Your task to perform on an android device: turn pop-ups off in chrome Image 0: 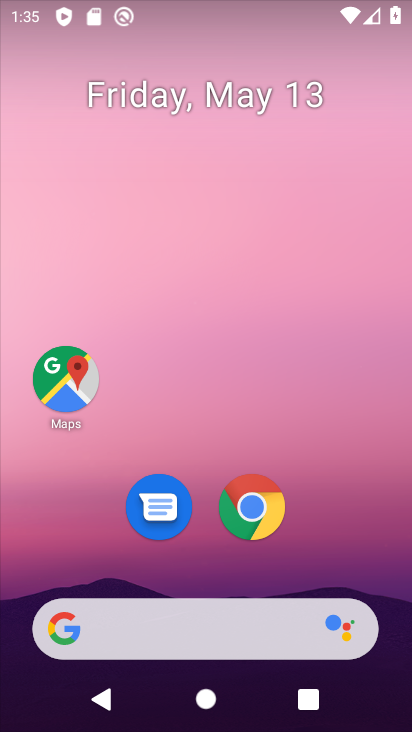
Step 0: click (176, 14)
Your task to perform on an android device: turn pop-ups off in chrome Image 1: 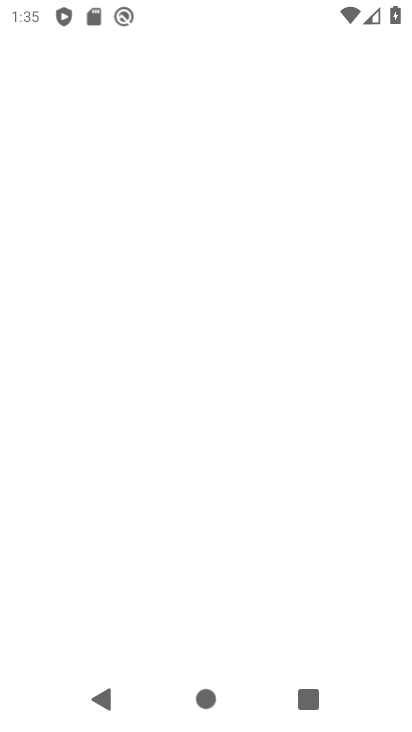
Step 1: drag from (322, 505) to (244, 5)
Your task to perform on an android device: turn pop-ups off in chrome Image 2: 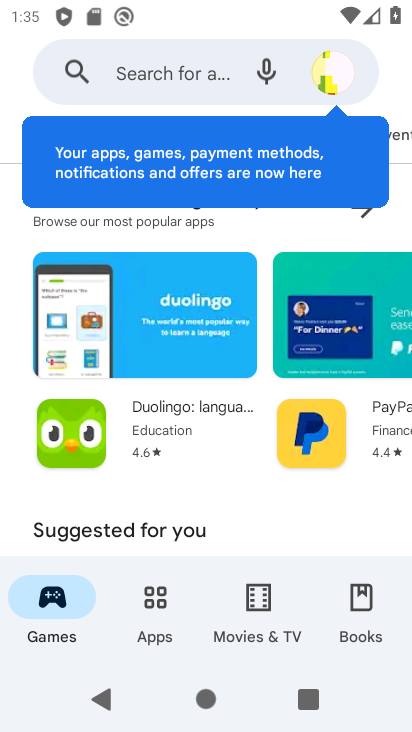
Step 2: press back button
Your task to perform on an android device: turn pop-ups off in chrome Image 3: 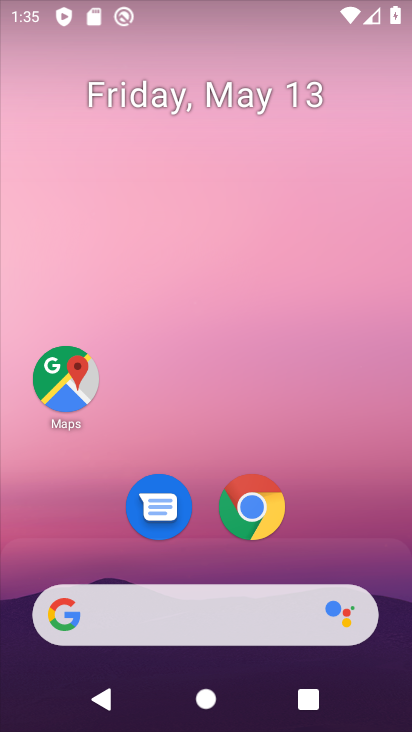
Step 3: drag from (223, 480) to (80, 6)
Your task to perform on an android device: turn pop-ups off in chrome Image 4: 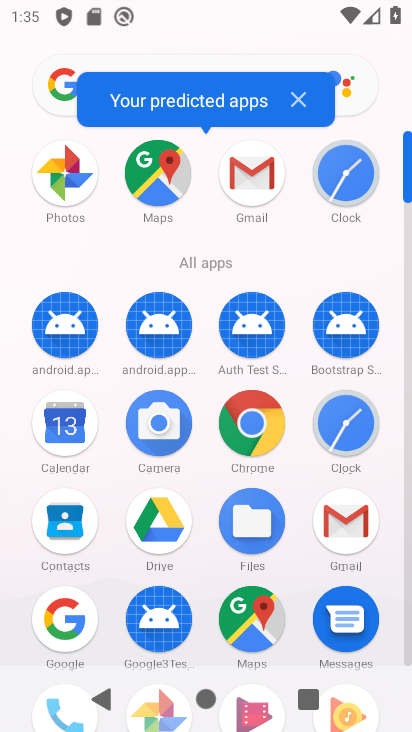
Step 4: click (243, 417)
Your task to perform on an android device: turn pop-ups off in chrome Image 5: 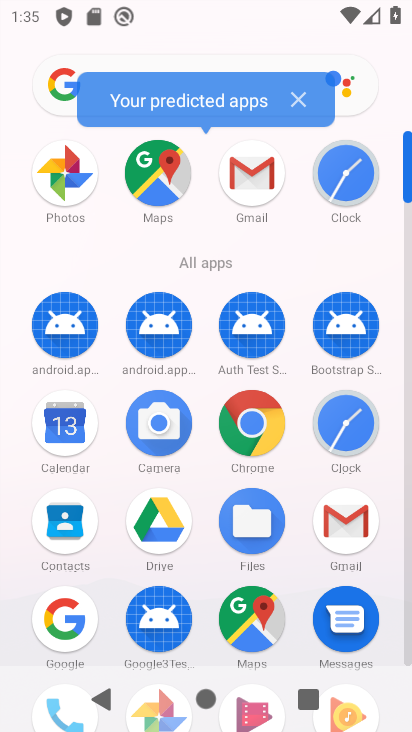
Step 5: click (243, 419)
Your task to perform on an android device: turn pop-ups off in chrome Image 6: 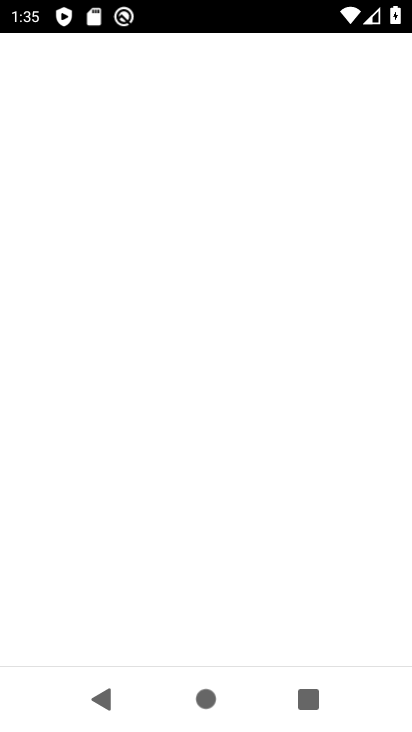
Step 6: click (247, 421)
Your task to perform on an android device: turn pop-ups off in chrome Image 7: 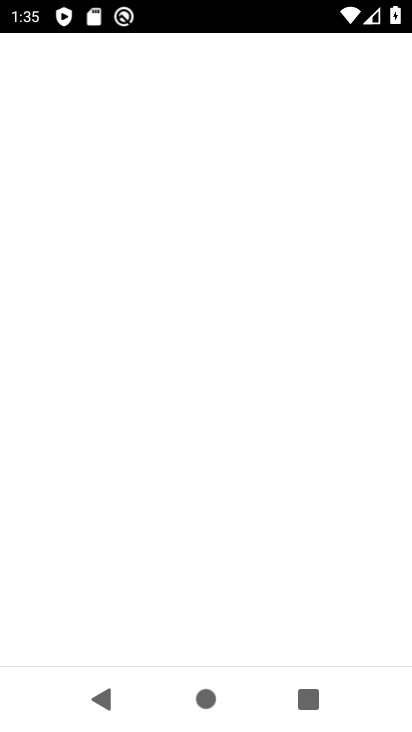
Step 7: click (247, 421)
Your task to perform on an android device: turn pop-ups off in chrome Image 8: 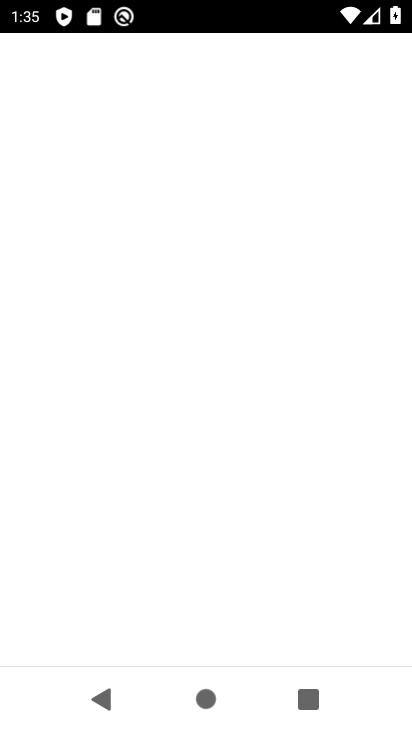
Step 8: click (247, 421)
Your task to perform on an android device: turn pop-ups off in chrome Image 9: 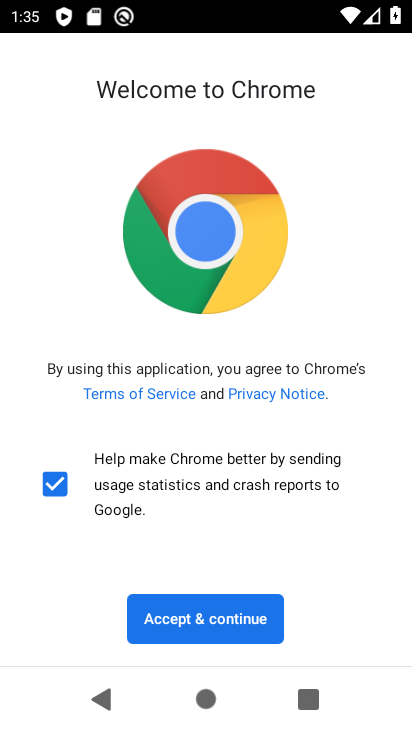
Step 9: click (221, 611)
Your task to perform on an android device: turn pop-ups off in chrome Image 10: 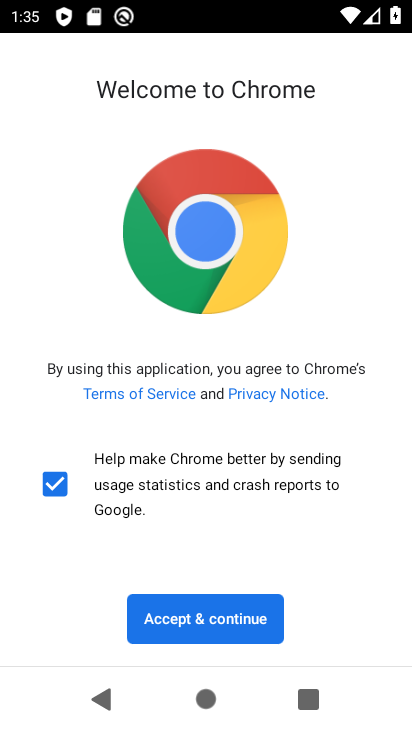
Step 10: click (215, 612)
Your task to perform on an android device: turn pop-ups off in chrome Image 11: 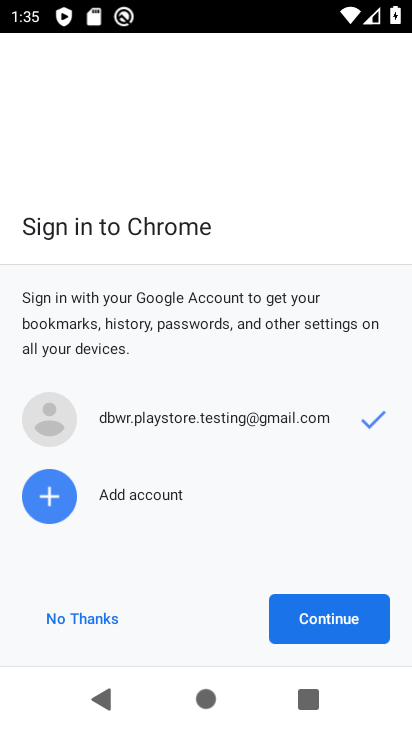
Step 11: click (334, 624)
Your task to perform on an android device: turn pop-ups off in chrome Image 12: 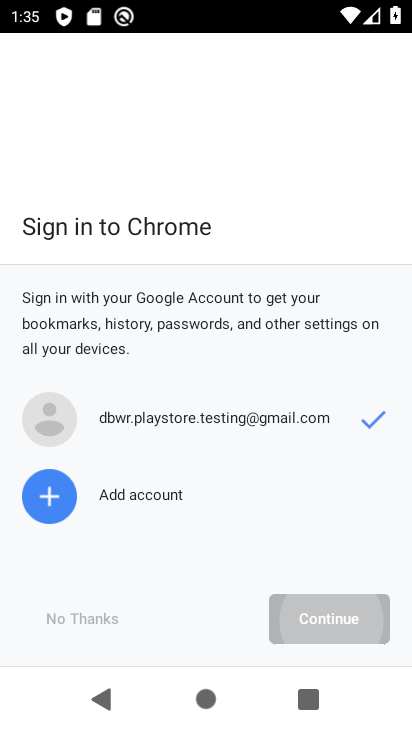
Step 12: click (334, 624)
Your task to perform on an android device: turn pop-ups off in chrome Image 13: 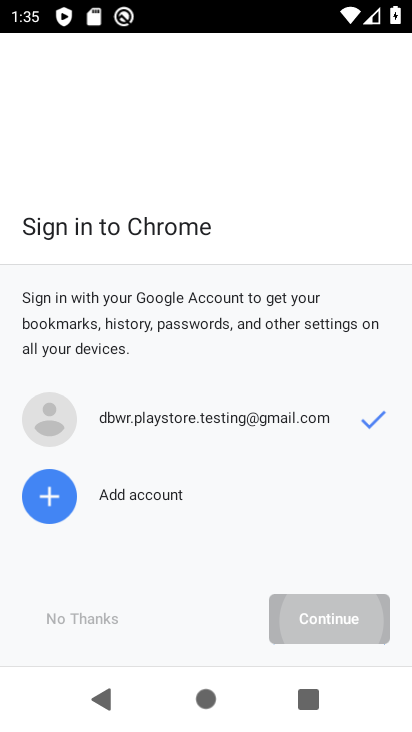
Step 13: click (333, 624)
Your task to perform on an android device: turn pop-ups off in chrome Image 14: 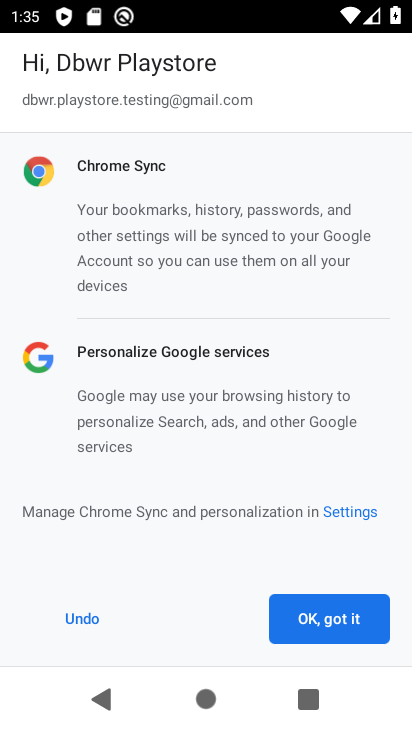
Step 14: click (347, 614)
Your task to perform on an android device: turn pop-ups off in chrome Image 15: 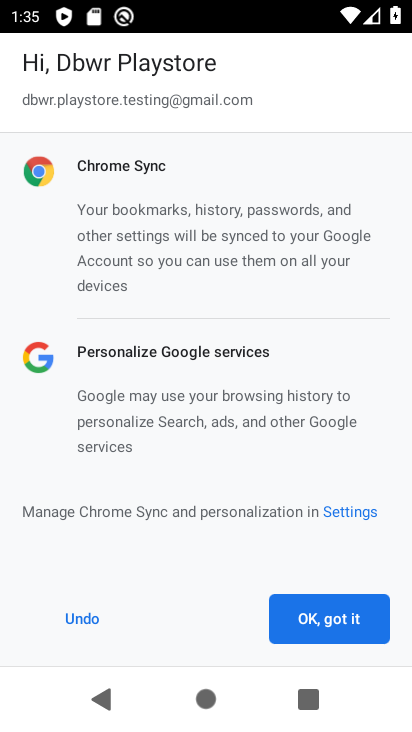
Step 15: click (346, 614)
Your task to perform on an android device: turn pop-ups off in chrome Image 16: 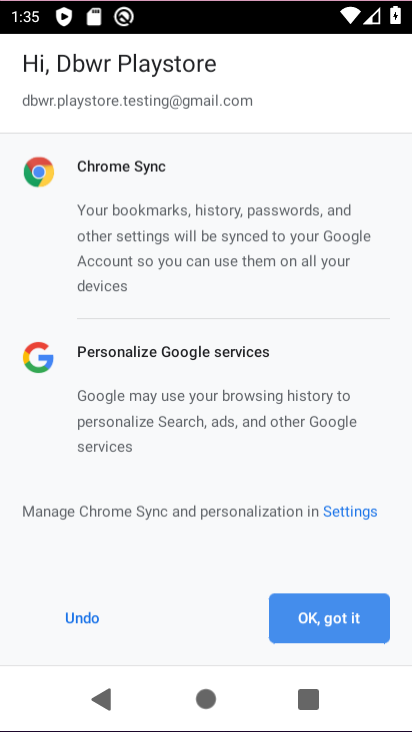
Step 16: click (346, 614)
Your task to perform on an android device: turn pop-ups off in chrome Image 17: 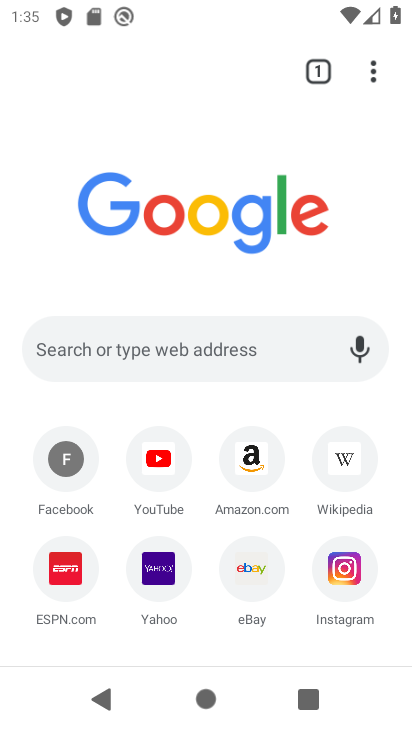
Step 17: click (367, 68)
Your task to perform on an android device: turn pop-ups off in chrome Image 18: 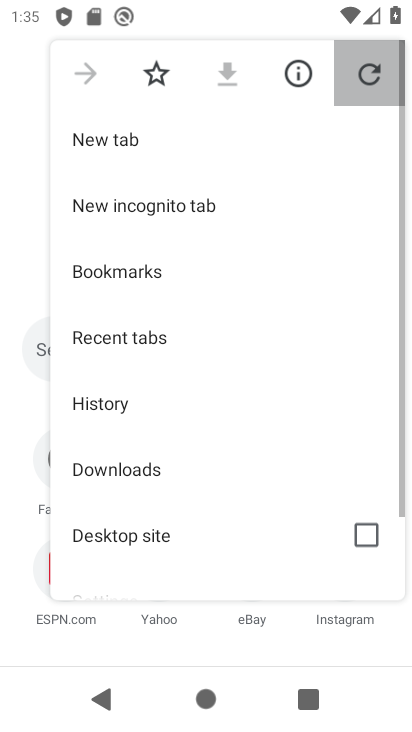
Step 18: click (367, 68)
Your task to perform on an android device: turn pop-ups off in chrome Image 19: 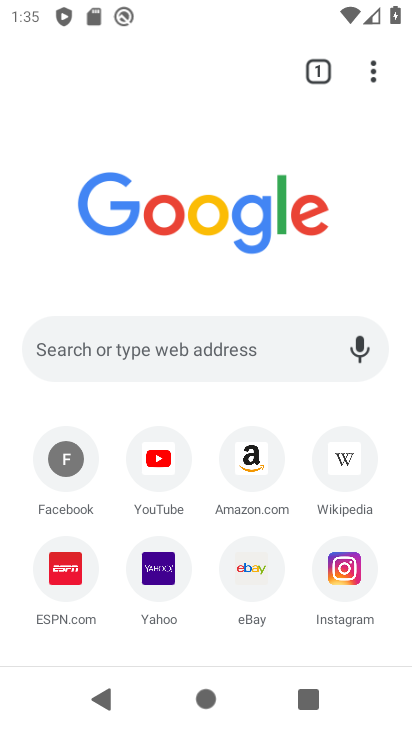
Step 19: click (367, 68)
Your task to perform on an android device: turn pop-ups off in chrome Image 20: 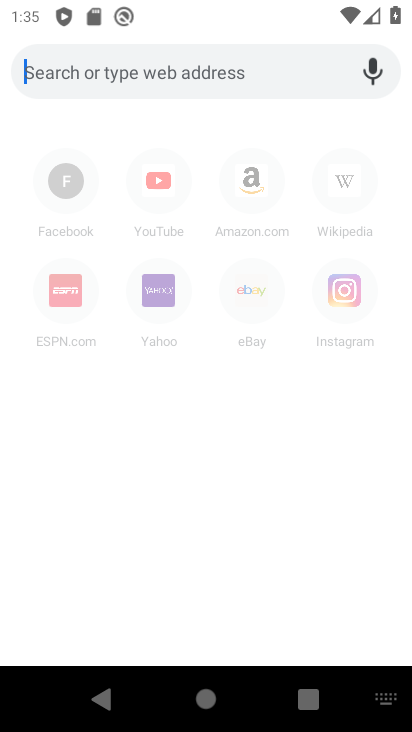
Step 20: press back button
Your task to perform on an android device: turn pop-ups off in chrome Image 21: 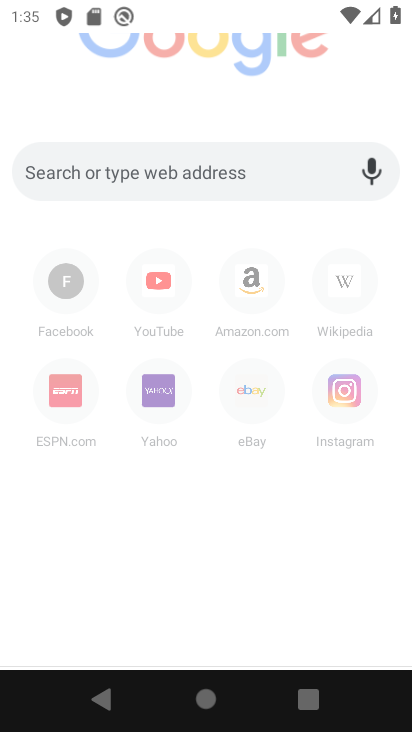
Step 21: press back button
Your task to perform on an android device: turn pop-ups off in chrome Image 22: 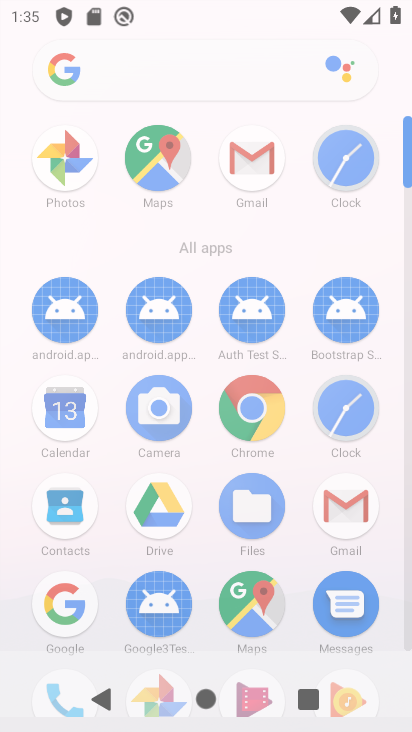
Step 22: press home button
Your task to perform on an android device: turn pop-ups off in chrome Image 23: 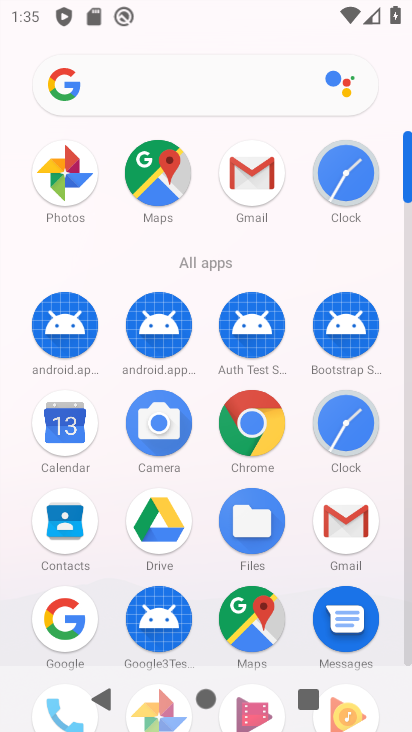
Step 23: press home button
Your task to perform on an android device: turn pop-ups off in chrome Image 24: 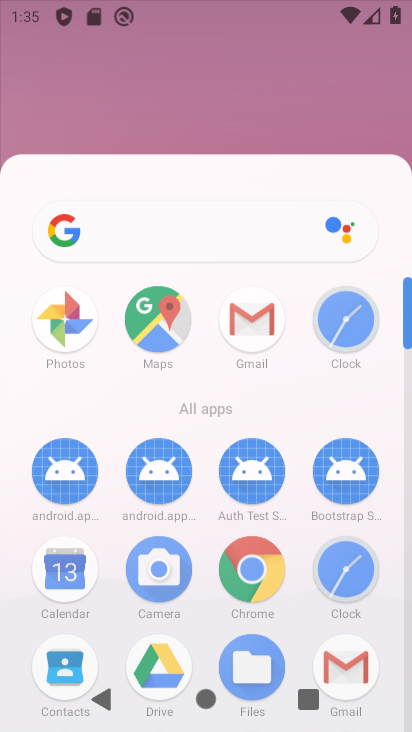
Step 24: drag from (305, 128) to (387, 554)
Your task to perform on an android device: turn pop-ups off in chrome Image 25: 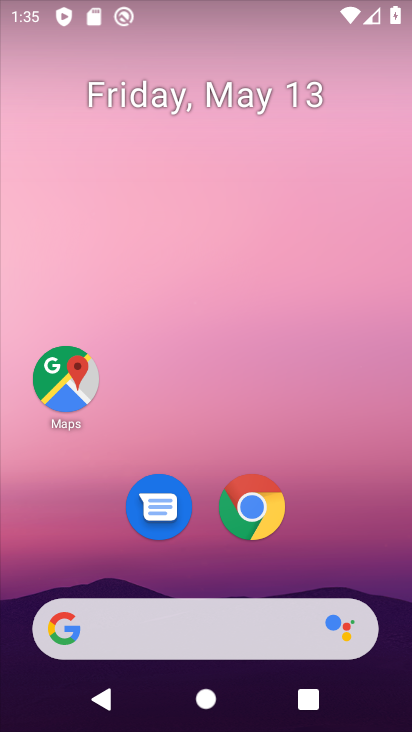
Step 25: drag from (277, 435) to (186, 11)
Your task to perform on an android device: turn pop-ups off in chrome Image 26: 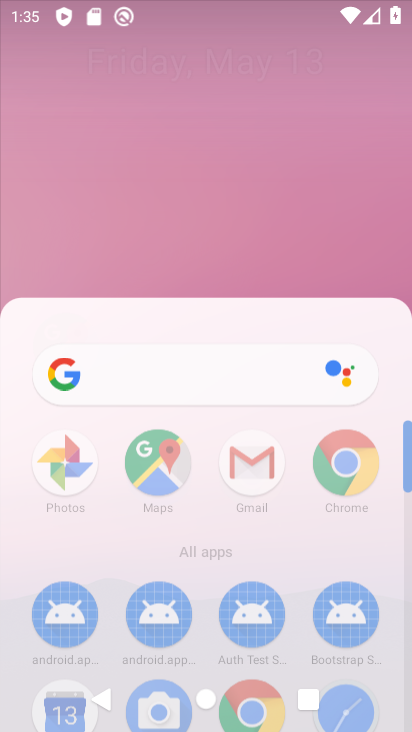
Step 26: drag from (291, 423) to (205, 24)
Your task to perform on an android device: turn pop-ups off in chrome Image 27: 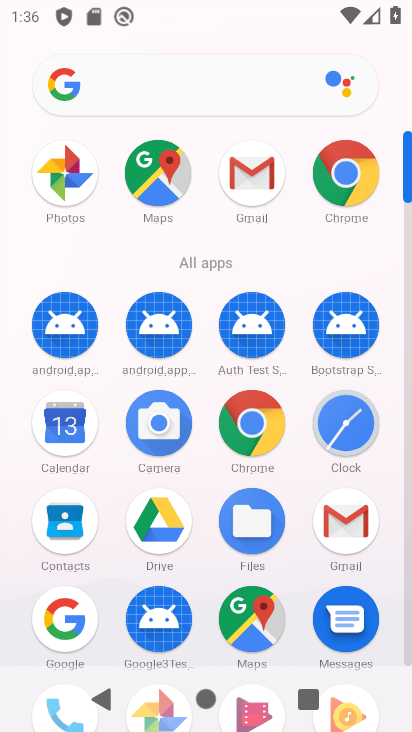
Step 27: click (346, 174)
Your task to perform on an android device: turn pop-ups off in chrome Image 28: 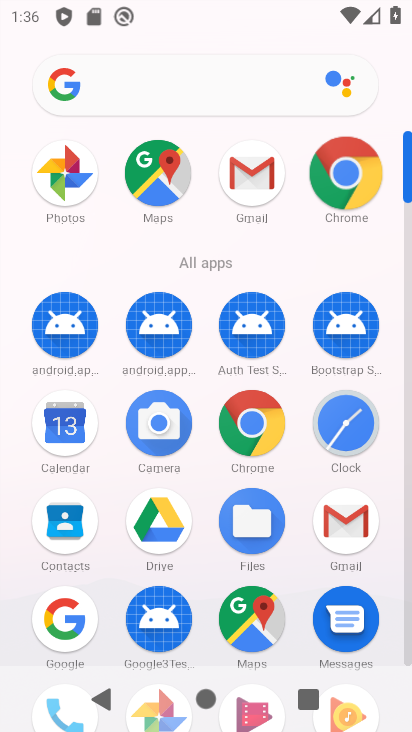
Step 28: click (350, 166)
Your task to perform on an android device: turn pop-ups off in chrome Image 29: 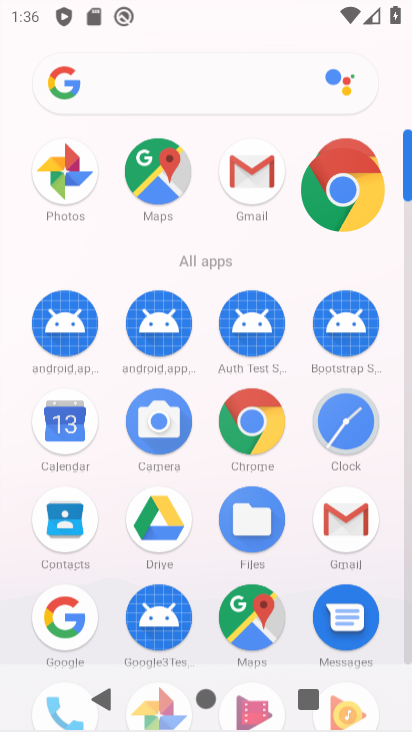
Step 29: drag from (358, 140) to (338, 169)
Your task to perform on an android device: turn pop-ups off in chrome Image 30: 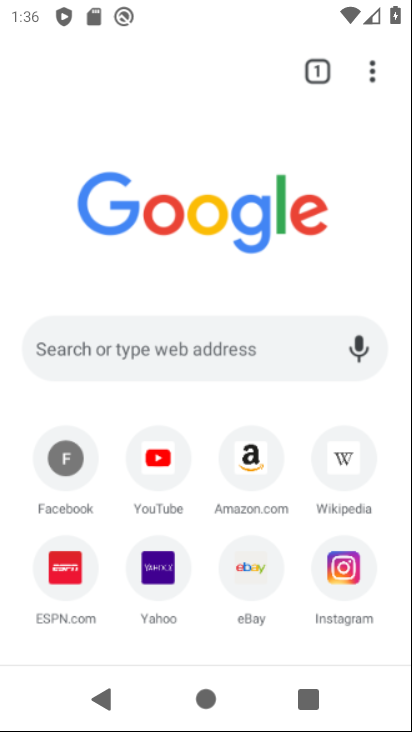
Step 30: click (343, 175)
Your task to perform on an android device: turn pop-ups off in chrome Image 31: 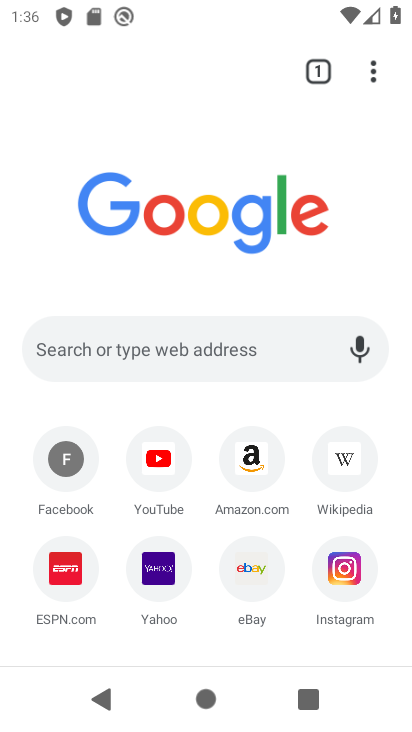
Step 31: drag from (372, 68) to (114, 501)
Your task to perform on an android device: turn pop-ups off in chrome Image 32: 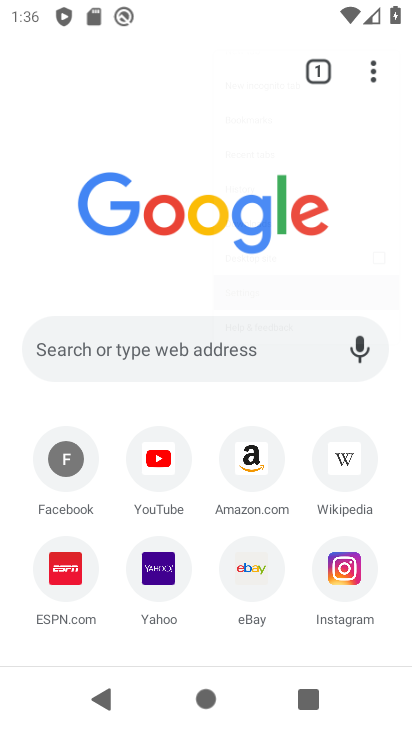
Step 32: click (115, 502)
Your task to perform on an android device: turn pop-ups off in chrome Image 33: 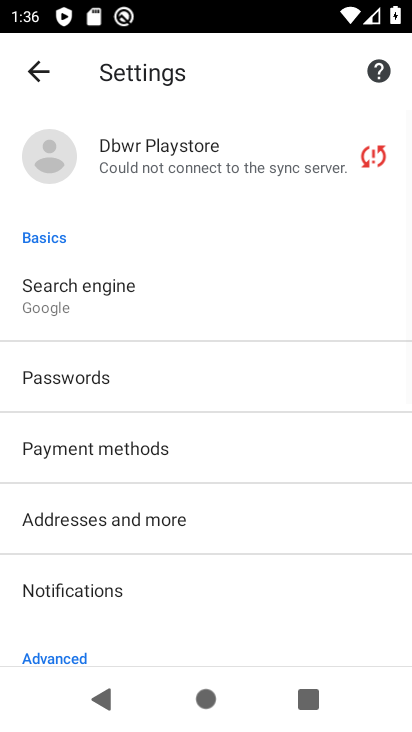
Step 33: drag from (160, 437) to (120, 15)
Your task to perform on an android device: turn pop-ups off in chrome Image 34: 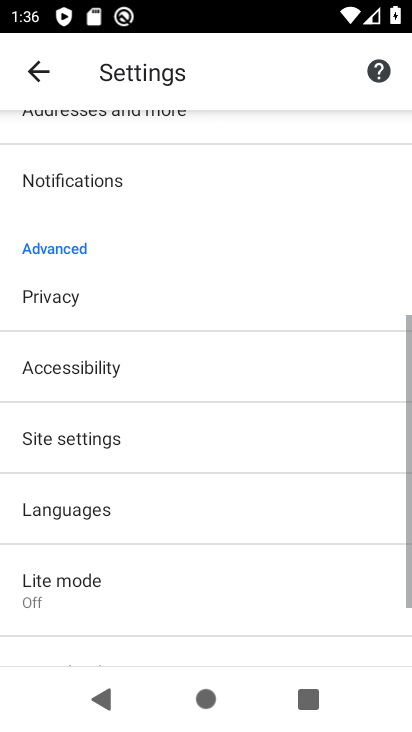
Step 34: drag from (154, 425) to (173, 0)
Your task to perform on an android device: turn pop-ups off in chrome Image 35: 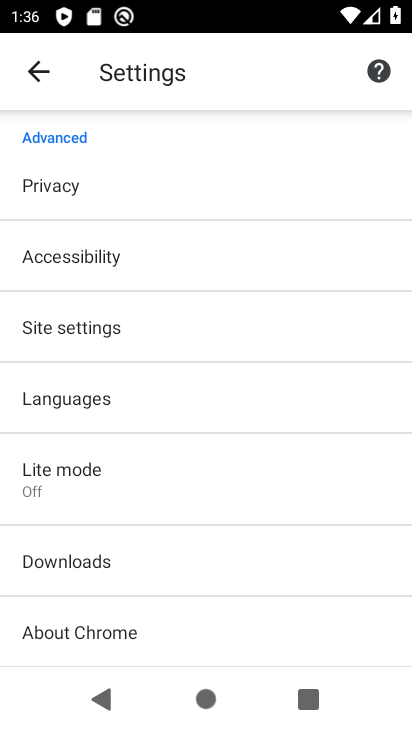
Step 35: click (57, 326)
Your task to perform on an android device: turn pop-ups off in chrome Image 36: 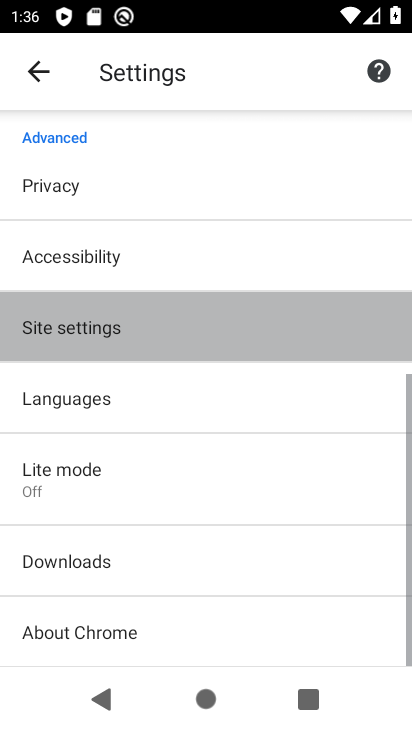
Step 36: click (57, 326)
Your task to perform on an android device: turn pop-ups off in chrome Image 37: 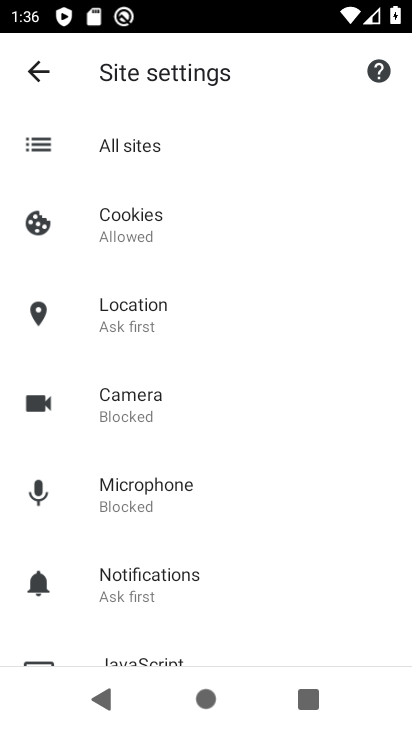
Step 37: drag from (172, 469) to (116, 70)
Your task to perform on an android device: turn pop-ups off in chrome Image 38: 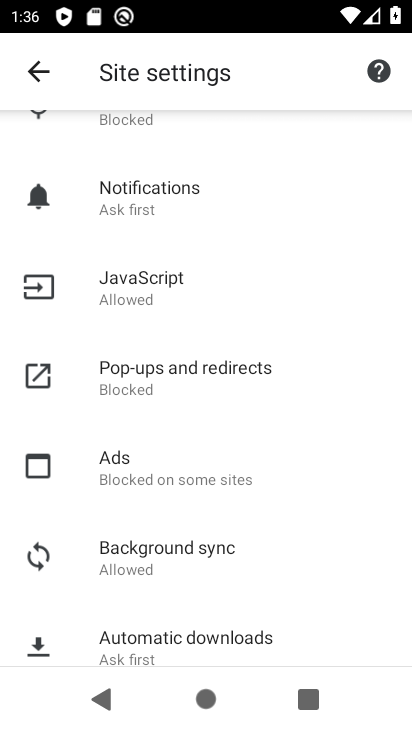
Step 38: drag from (147, 407) to (138, 87)
Your task to perform on an android device: turn pop-ups off in chrome Image 39: 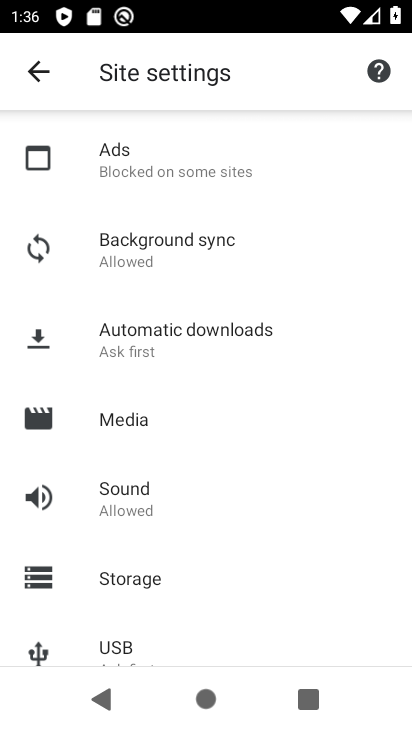
Step 39: drag from (142, 157) to (213, 562)
Your task to perform on an android device: turn pop-ups off in chrome Image 40: 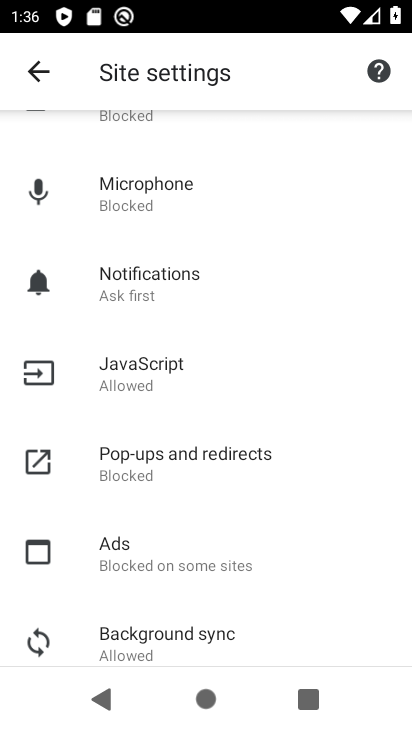
Step 40: click (159, 454)
Your task to perform on an android device: turn pop-ups off in chrome Image 41: 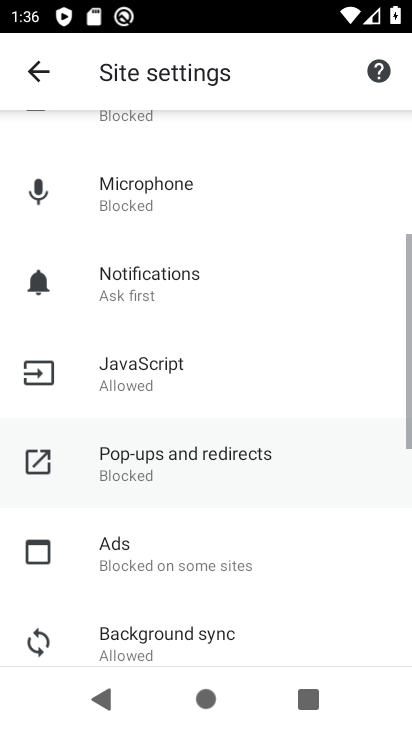
Step 41: click (160, 453)
Your task to perform on an android device: turn pop-ups off in chrome Image 42: 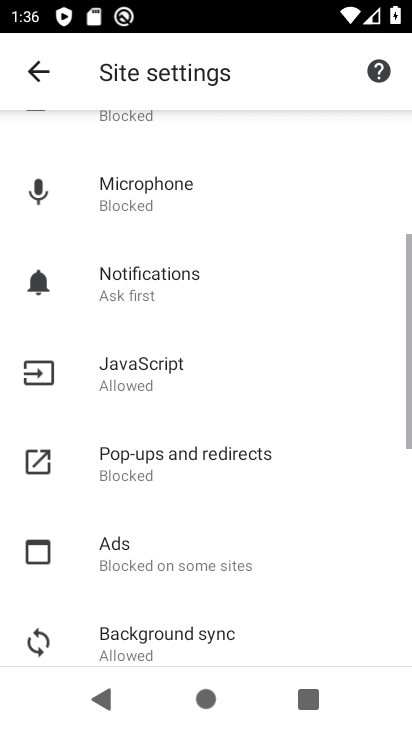
Step 42: click (161, 454)
Your task to perform on an android device: turn pop-ups off in chrome Image 43: 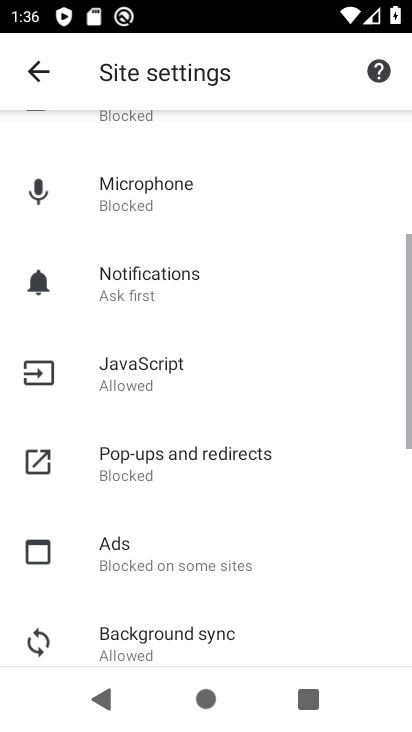
Step 43: click (132, 473)
Your task to perform on an android device: turn pop-ups off in chrome Image 44: 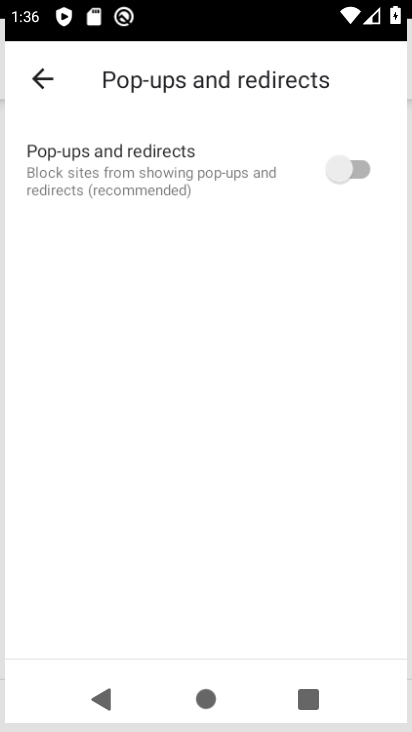
Step 44: click (132, 473)
Your task to perform on an android device: turn pop-ups off in chrome Image 45: 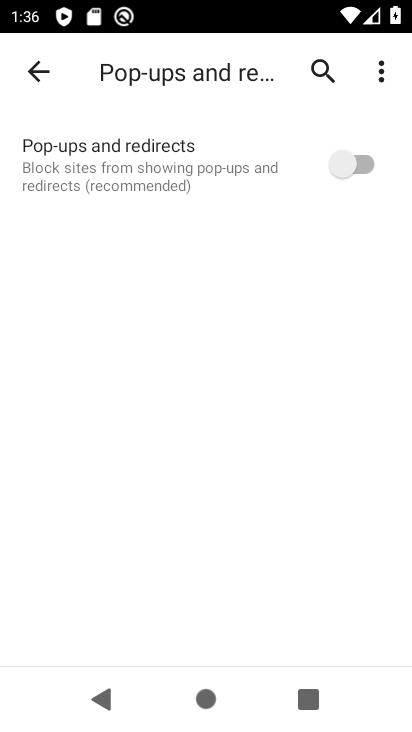
Step 45: click (132, 473)
Your task to perform on an android device: turn pop-ups off in chrome Image 46: 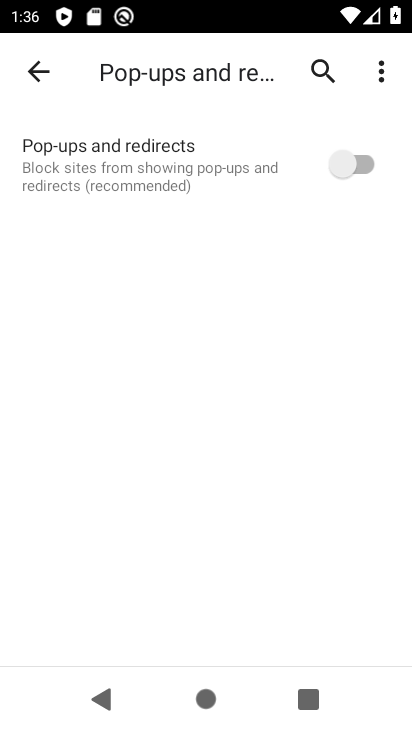
Step 46: click (129, 459)
Your task to perform on an android device: turn pop-ups off in chrome Image 47: 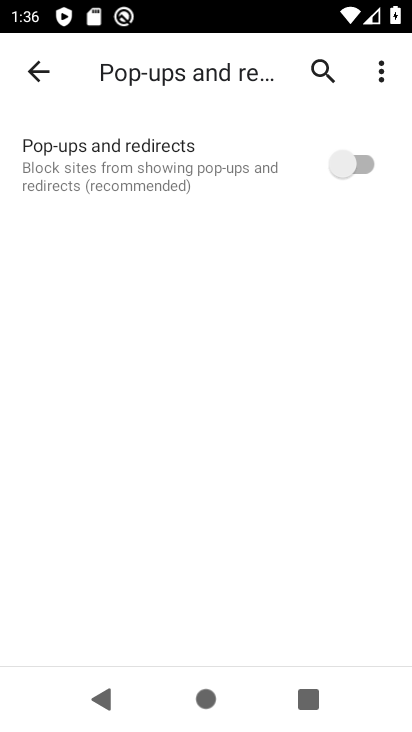
Step 47: task complete